Your task to perform on an android device: Open Google Image 0: 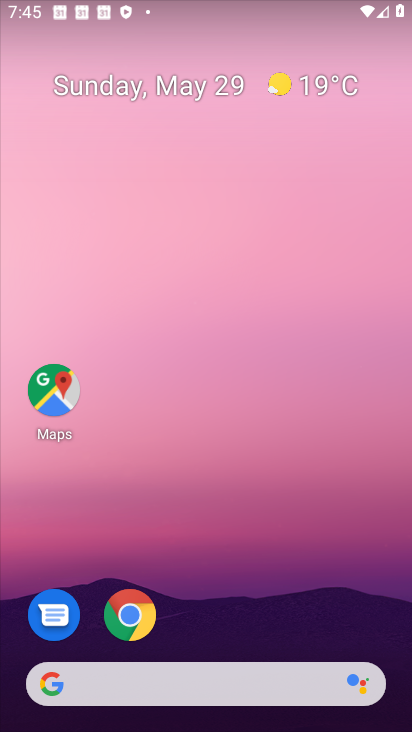
Step 0: drag from (137, 725) to (129, 146)
Your task to perform on an android device: Open Google Image 1: 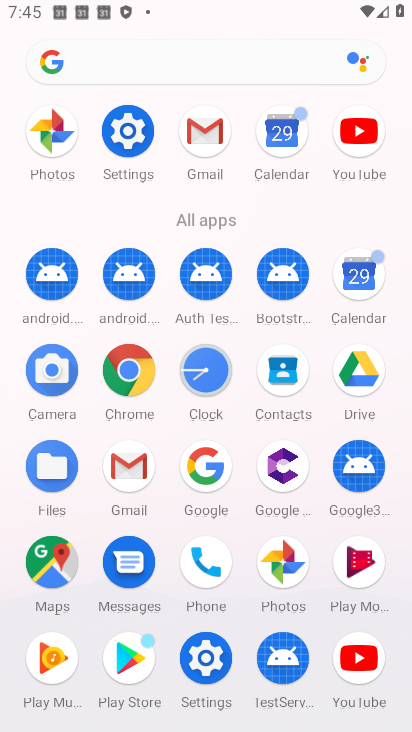
Step 1: click (202, 474)
Your task to perform on an android device: Open Google Image 2: 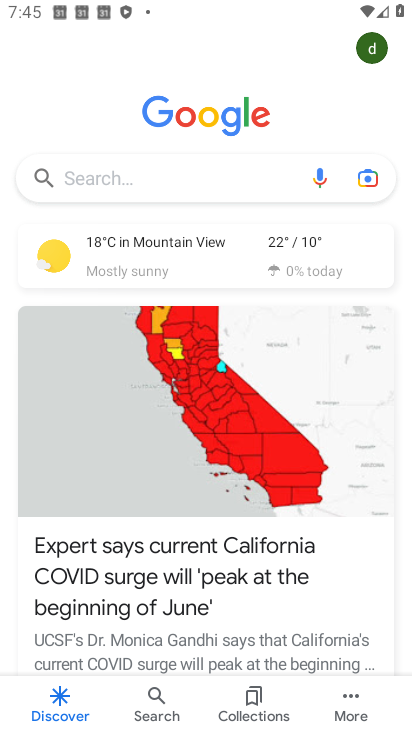
Step 2: task complete